Your task to perform on an android device: change the clock style Image 0: 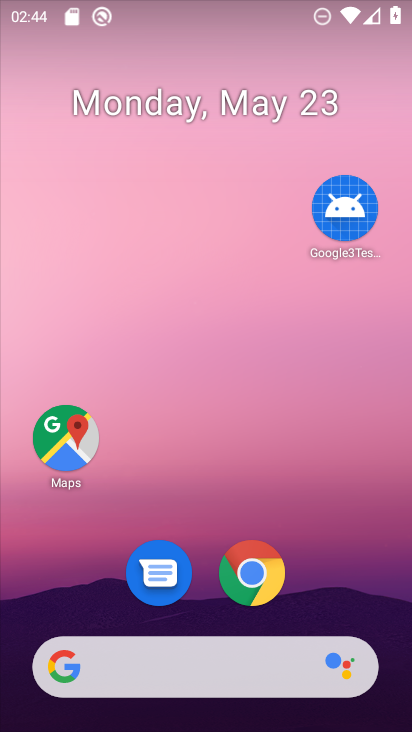
Step 0: drag from (309, 376) to (276, 12)
Your task to perform on an android device: change the clock style Image 1: 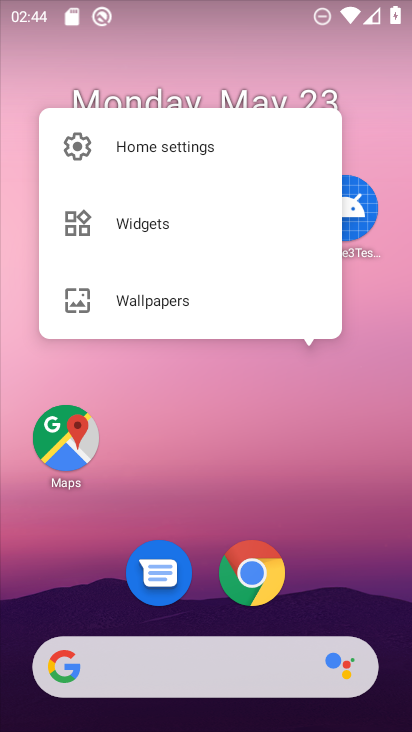
Step 1: click (369, 514)
Your task to perform on an android device: change the clock style Image 2: 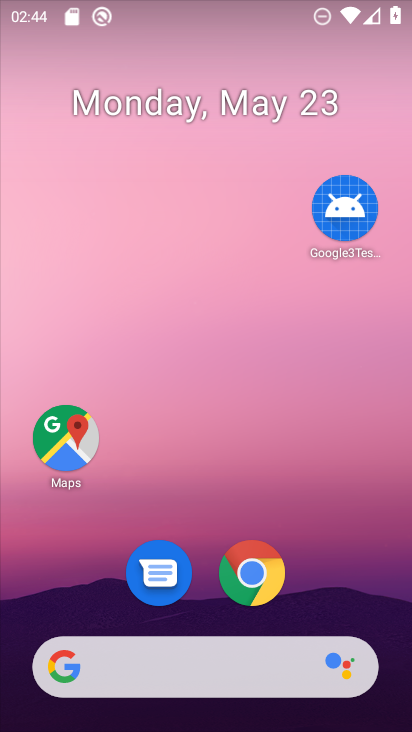
Step 2: drag from (302, 485) to (231, 146)
Your task to perform on an android device: change the clock style Image 3: 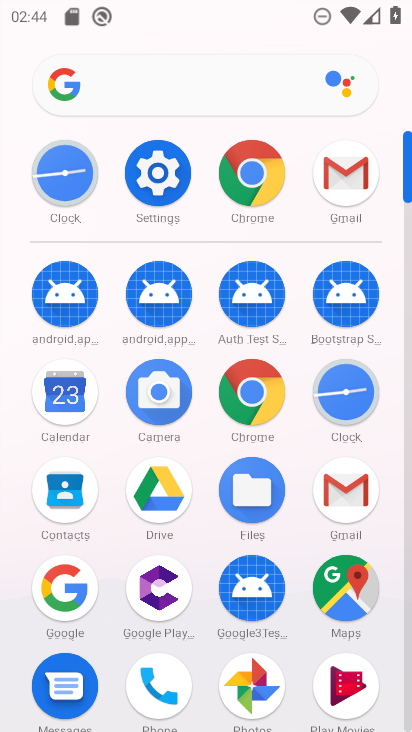
Step 3: click (334, 396)
Your task to perform on an android device: change the clock style Image 4: 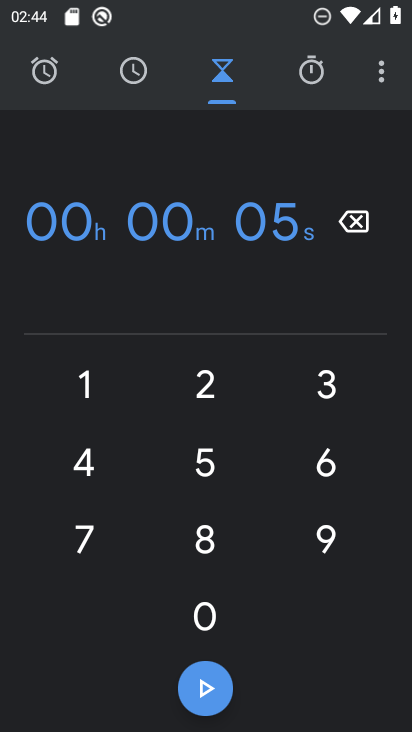
Step 4: drag from (387, 81) to (243, 149)
Your task to perform on an android device: change the clock style Image 5: 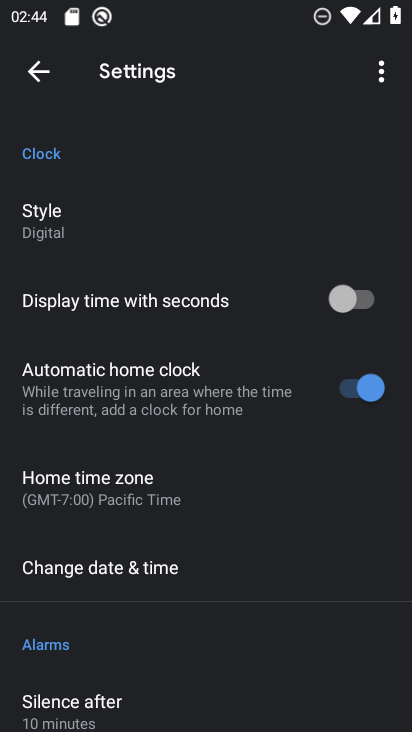
Step 5: click (147, 217)
Your task to perform on an android device: change the clock style Image 6: 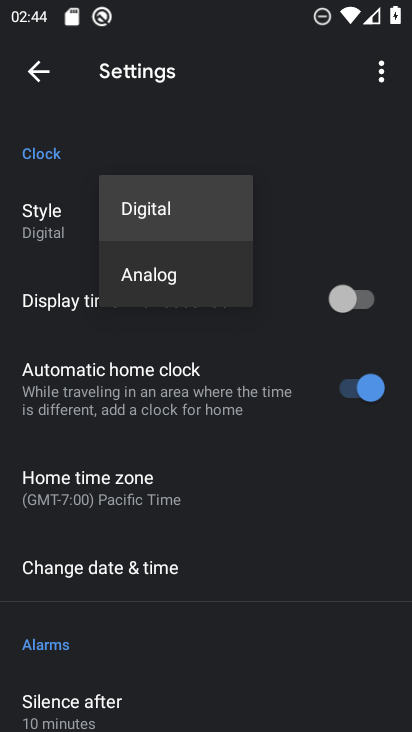
Step 6: click (157, 272)
Your task to perform on an android device: change the clock style Image 7: 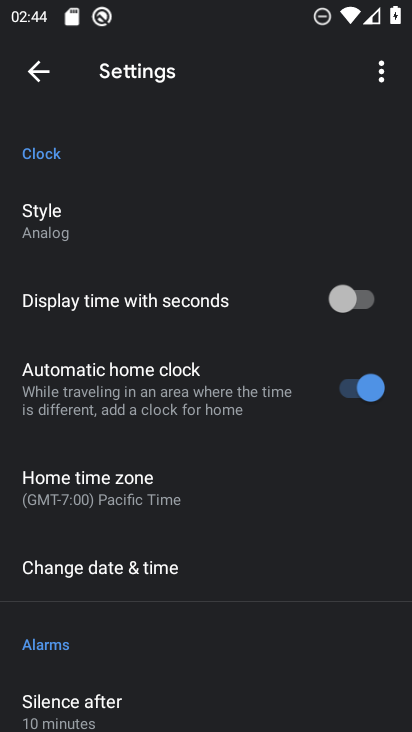
Step 7: task complete